Your task to perform on an android device: Go to eBay Image 0: 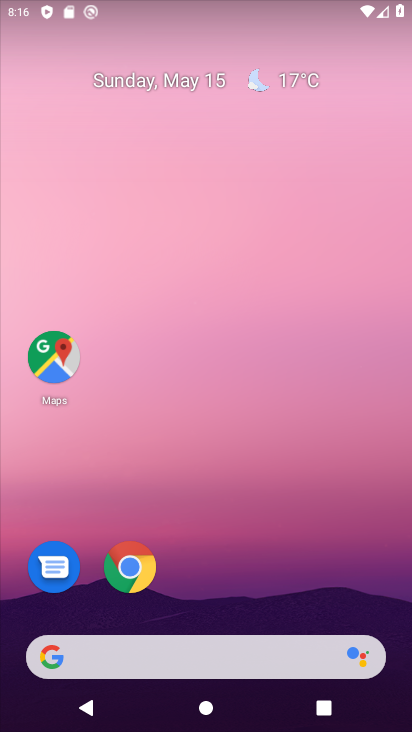
Step 0: click (146, 575)
Your task to perform on an android device: Go to eBay Image 1: 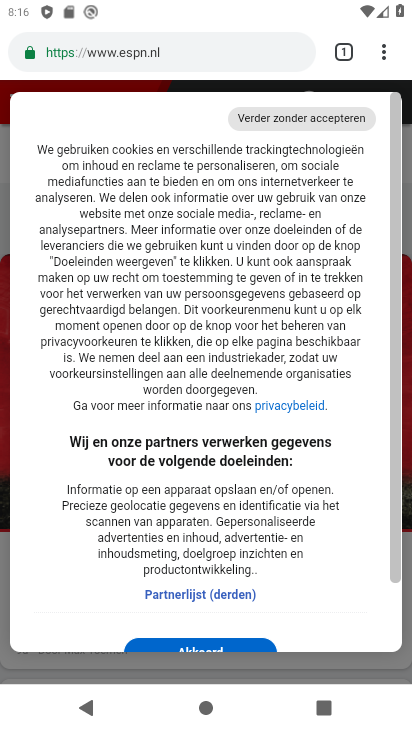
Step 1: click (147, 50)
Your task to perform on an android device: Go to eBay Image 2: 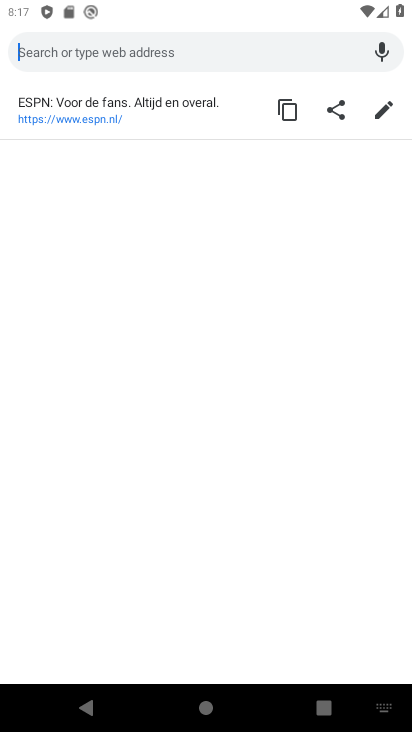
Step 2: type "ebay"
Your task to perform on an android device: Go to eBay Image 3: 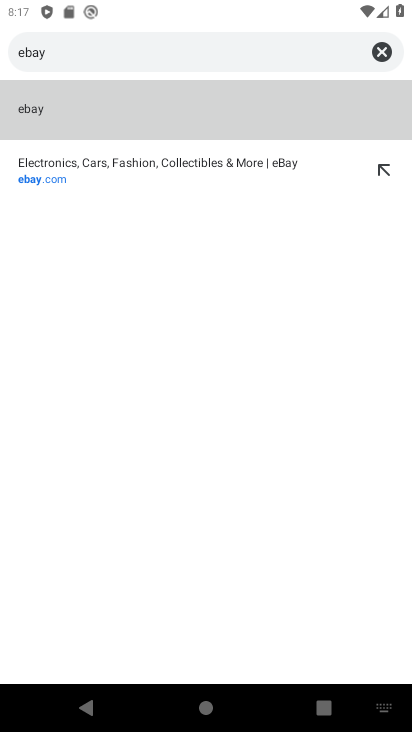
Step 3: click (176, 172)
Your task to perform on an android device: Go to eBay Image 4: 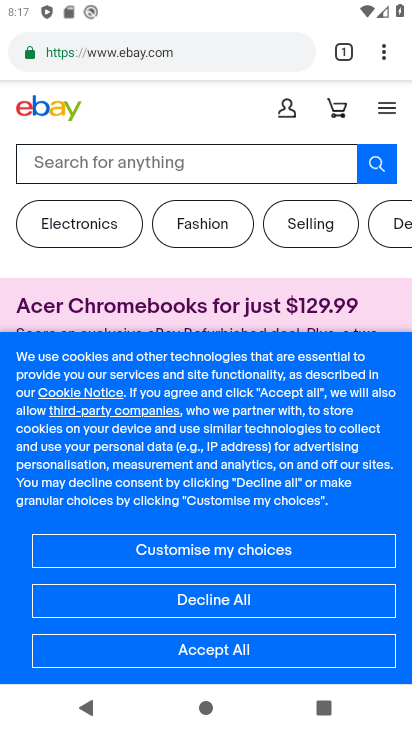
Step 4: task complete